Your task to perform on an android device: check google app version Image 0: 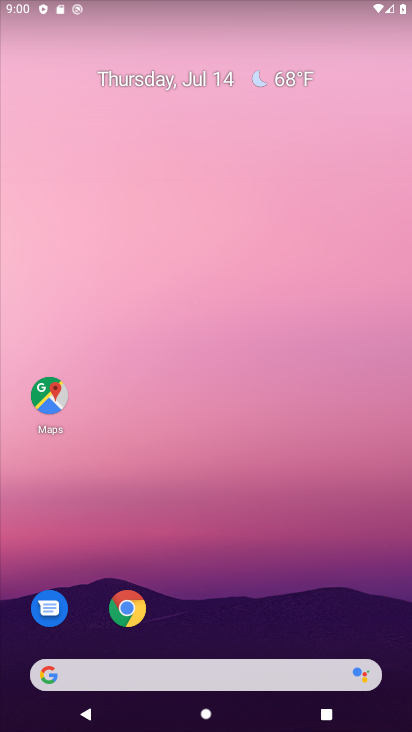
Step 0: drag from (201, 672) to (178, 118)
Your task to perform on an android device: check google app version Image 1: 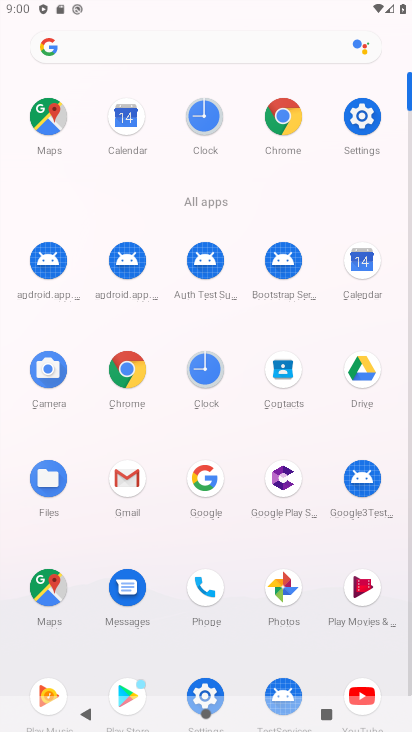
Step 1: click (197, 478)
Your task to perform on an android device: check google app version Image 2: 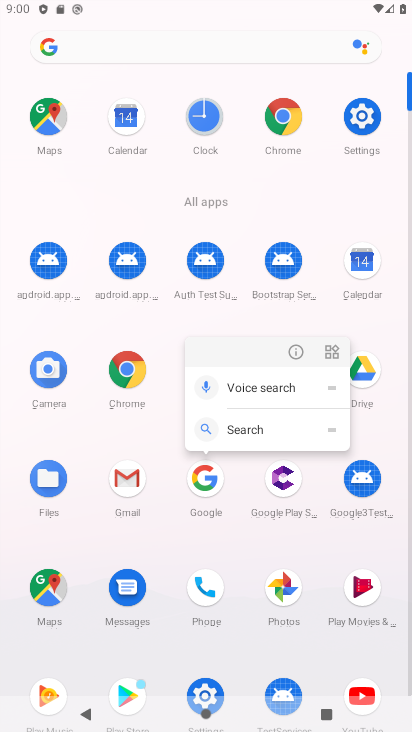
Step 2: click (301, 353)
Your task to perform on an android device: check google app version Image 3: 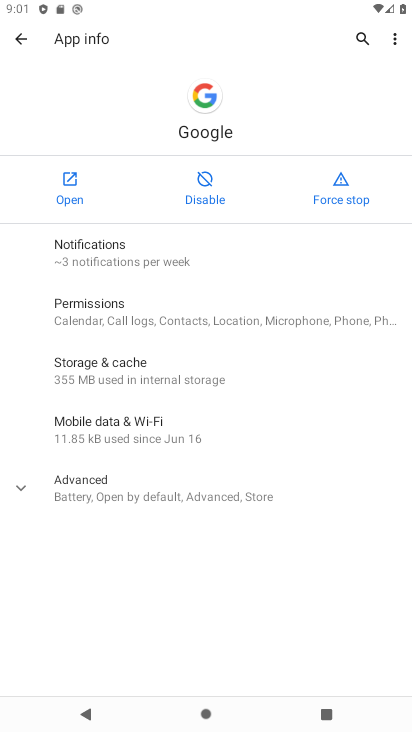
Step 3: click (140, 494)
Your task to perform on an android device: check google app version Image 4: 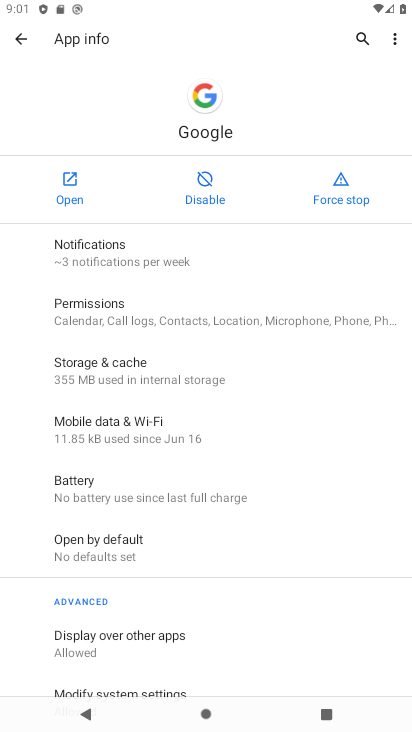
Step 4: task complete